Your task to perform on an android device: uninstall "Mercado Libre" Image 0: 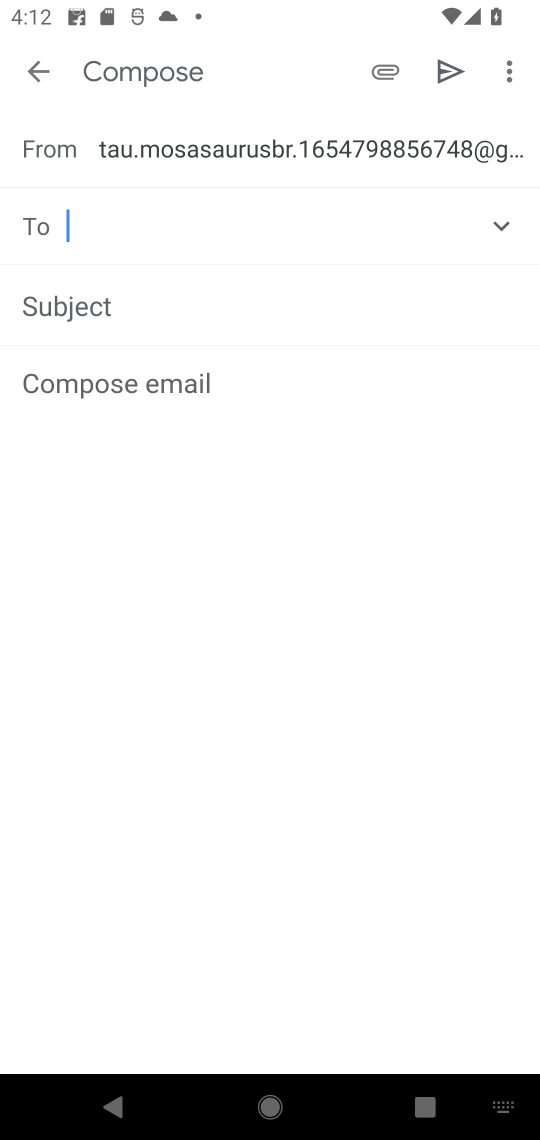
Step 0: press home button
Your task to perform on an android device: uninstall "Mercado Libre" Image 1: 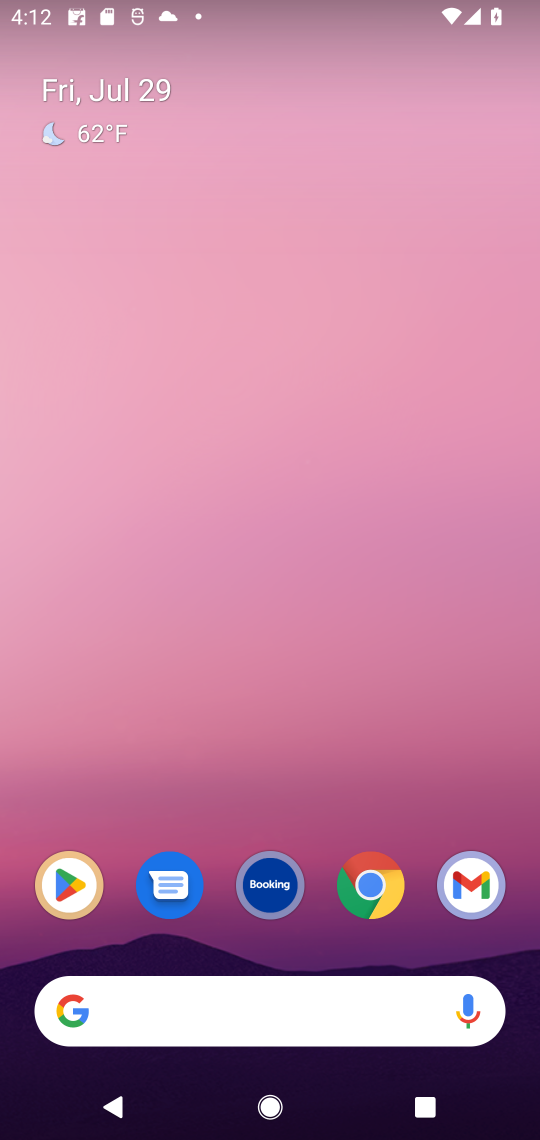
Step 1: click (76, 877)
Your task to perform on an android device: uninstall "Mercado Libre" Image 2: 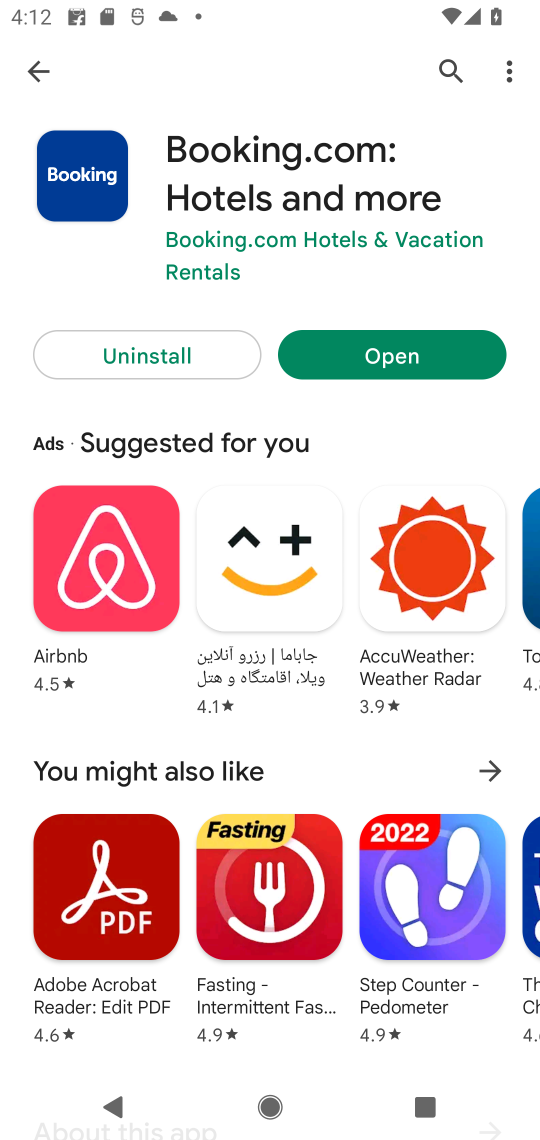
Step 2: click (453, 66)
Your task to perform on an android device: uninstall "Mercado Libre" Image 3: 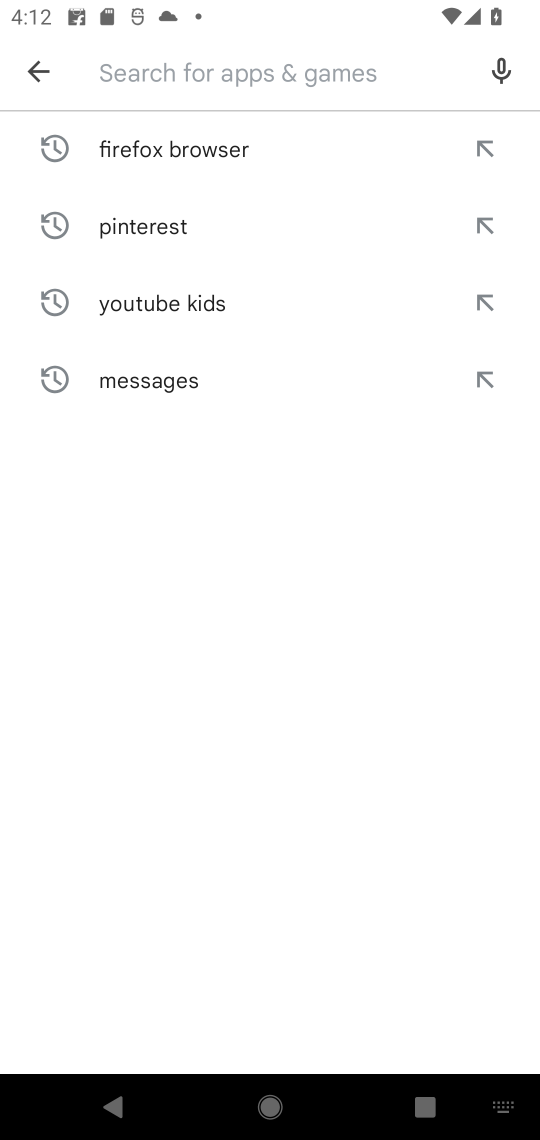
Step 3: type "Mercado Libre""
Your task to perform on an android device: uninstall "Mercado Libre" Image 4: 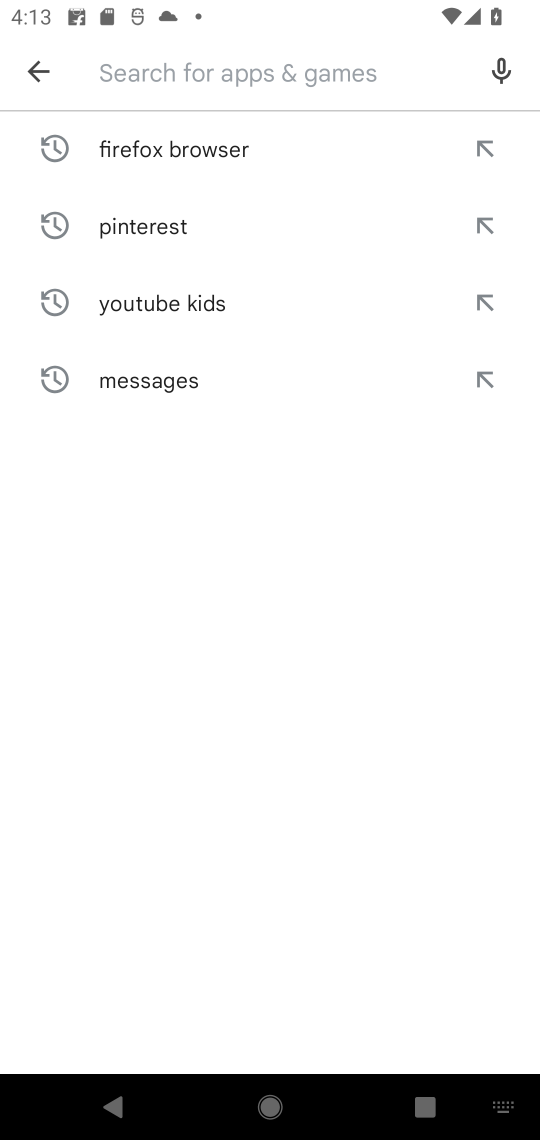
Step 4: type "Mercado Libre"
Your task to perform on an android device: uninstall "Mercado Libre" Image 5: 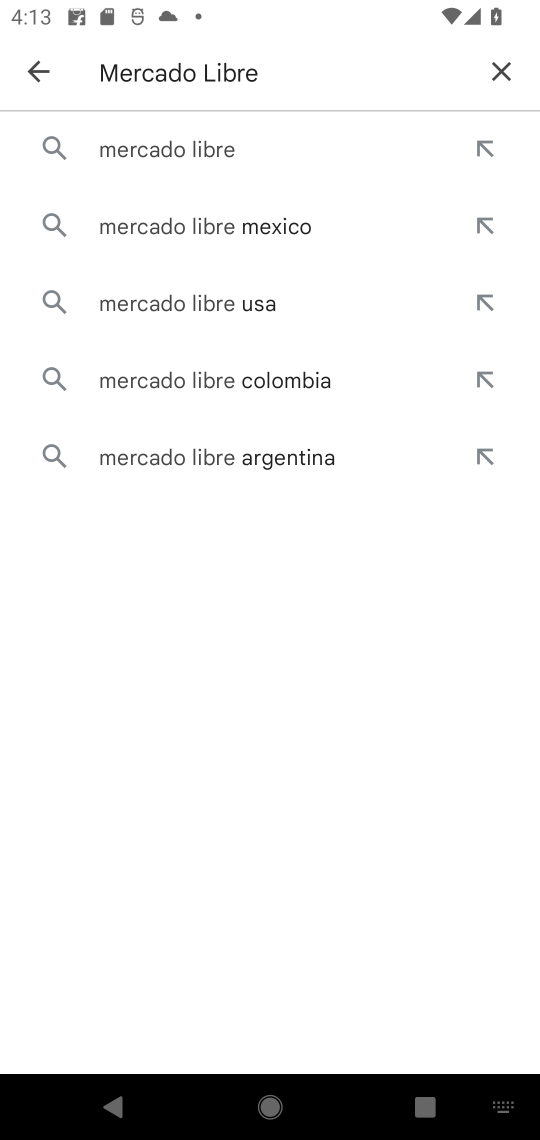
Step 5: click (219, 139)
Your task to perform on an android device: uninstall "Mercado Libre" Image 6: 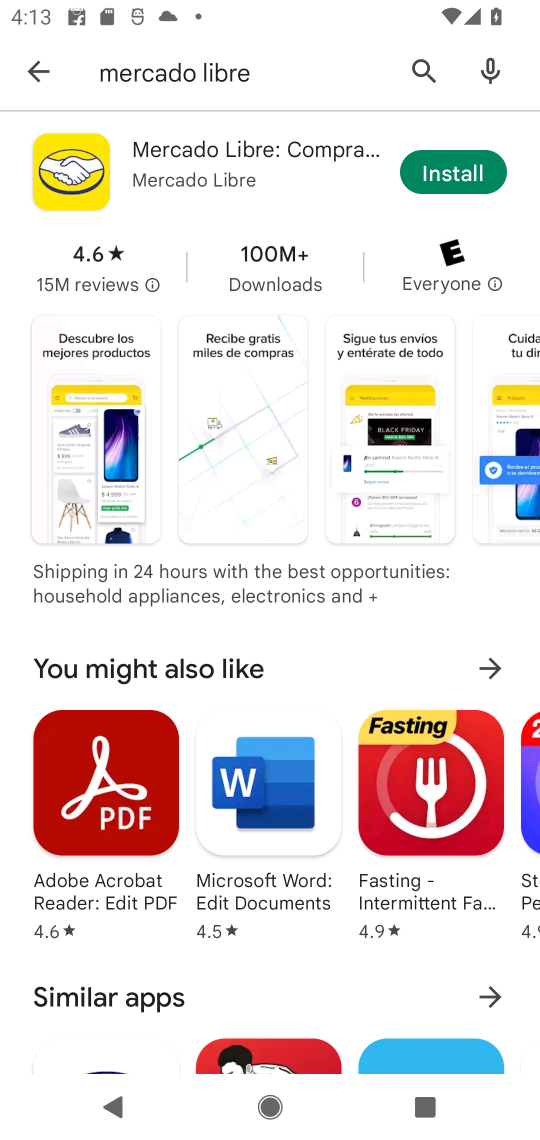
Step 6: task complete